Your task to perform on an android device: move an email to a new category in the gmail app Image 0: 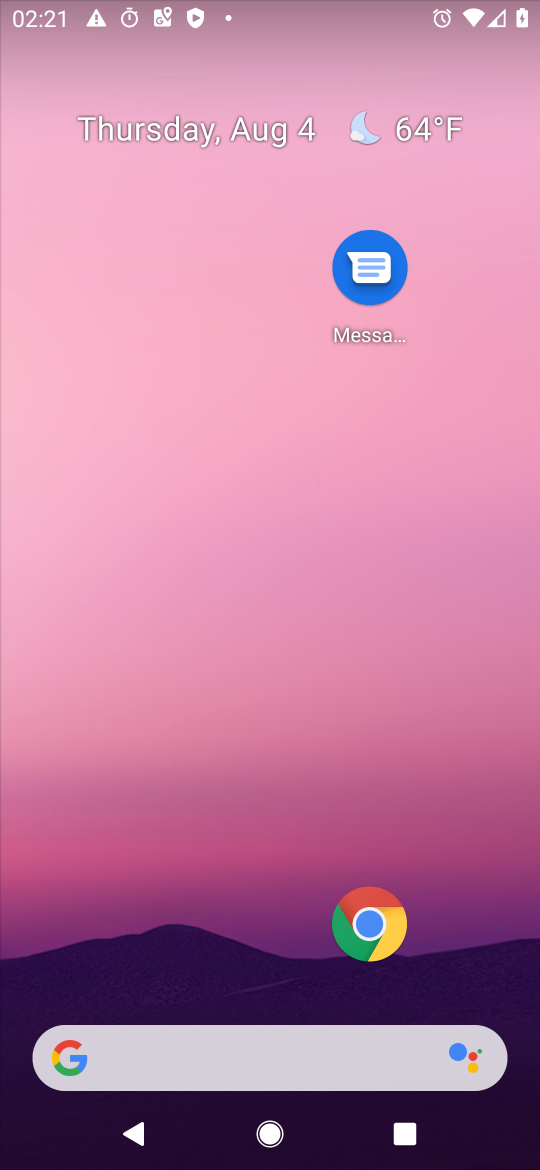
Step 0: drag from (60, 1096) to (274, 286)
Your task to perform on an android device: move an email to a new category in the gmail app Image 1: 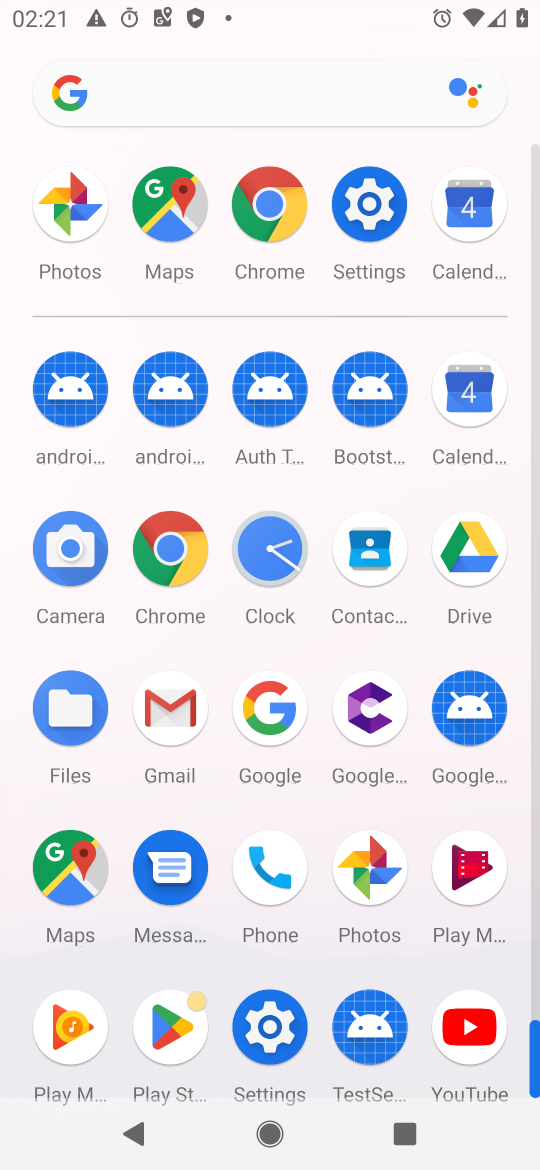
Step 1: click (150, 691)
Your task to perform on an android device: move an email to a new category in the gmail app Image 2: 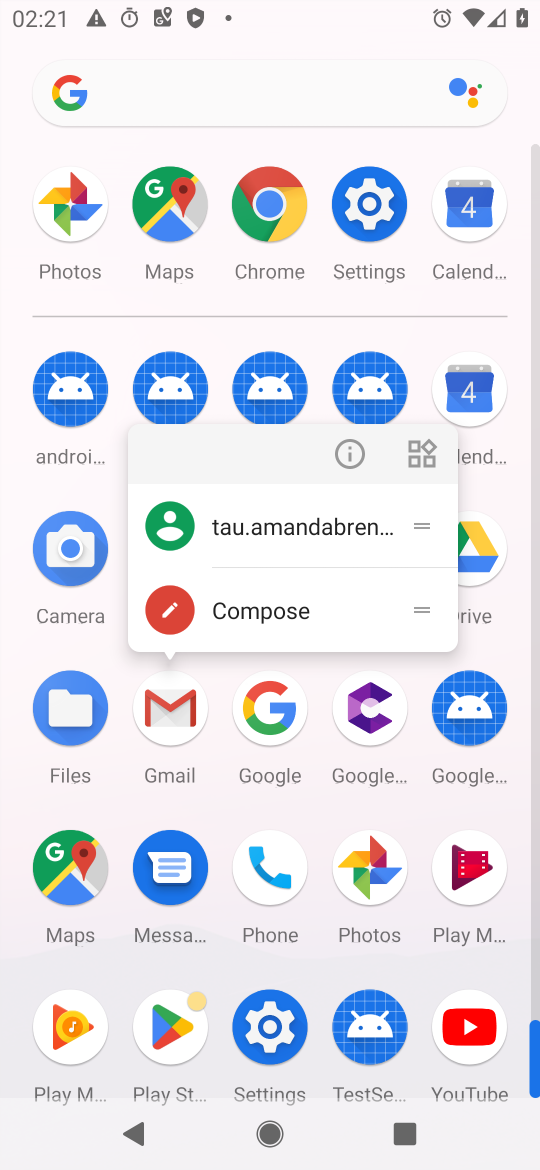
Step 2: click (162, 707)
Your task to perform on an android device: move an email to a new category in the gmail app Image 3: 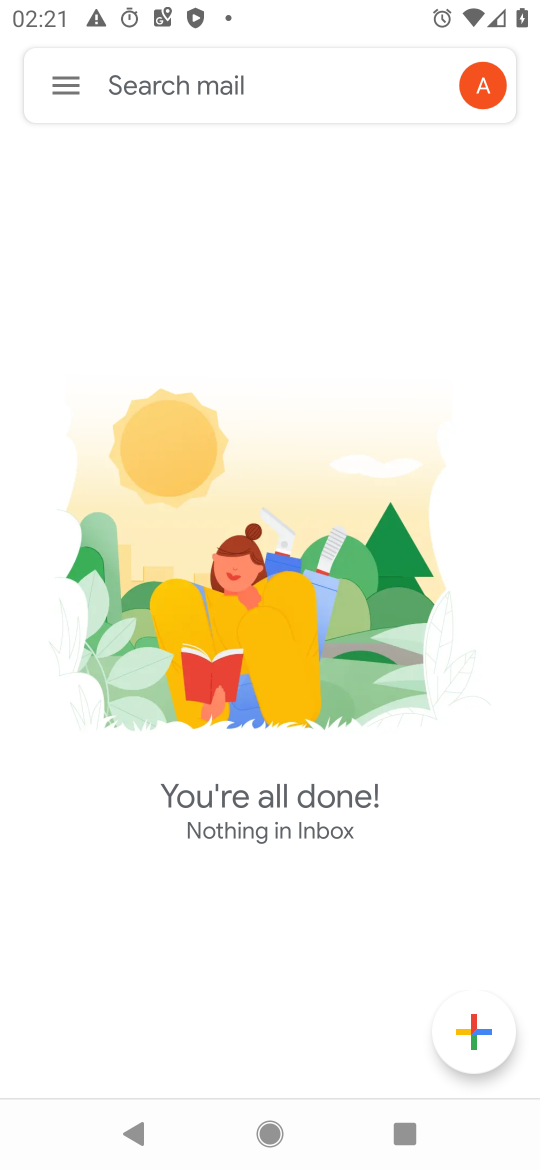
Step 3: task complete